Your task to perform on an android device: open a bookmark in the chrome app Image 0: 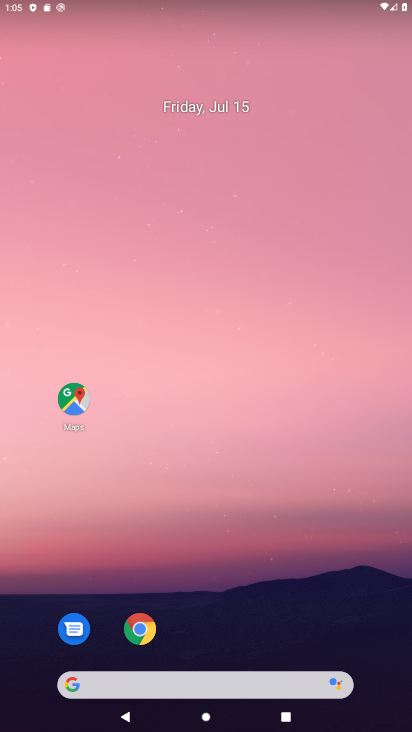
Step 0: click (250, 194)
Your task to perform on an android device: open a bookmark in the chrome app Image 1: 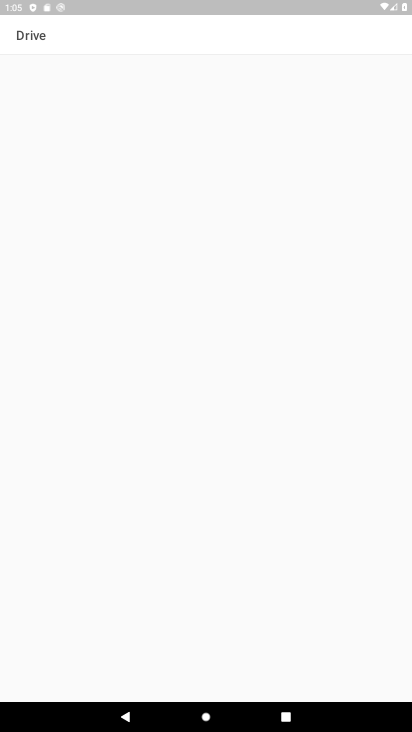
Step 1: press home button
Your task to perform on an android device: open a bookmark in the chrome app Image 2: 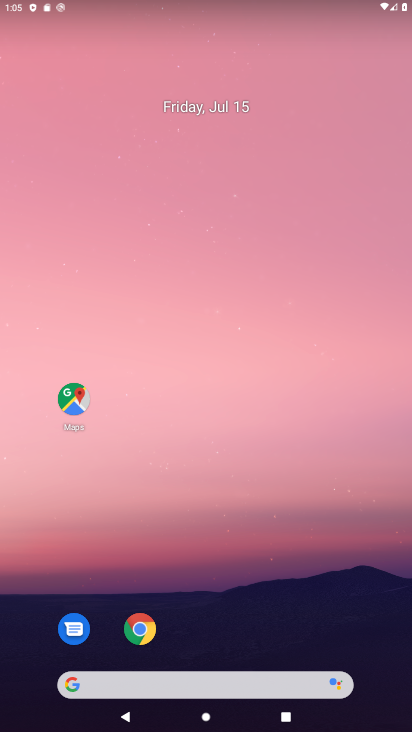
Step 2: drag from (240, 578) to (242, 171)
Your task to perform on an android device: open a bookmark in the chrome app Image 3: 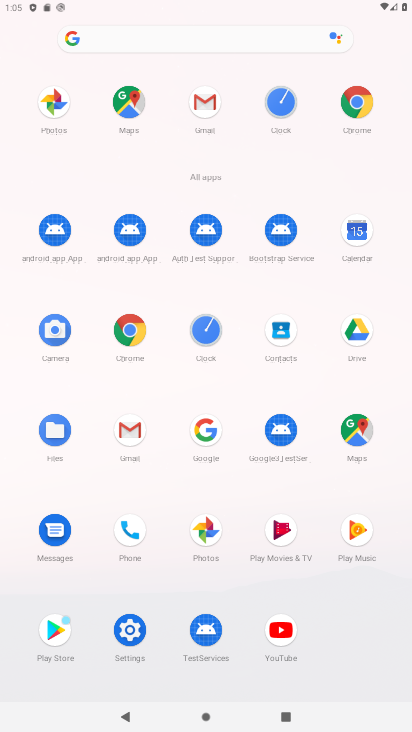
Step 3: click (130, 613)
Your task to perform on an android device: open a bookmark in the chrome app Image 4: 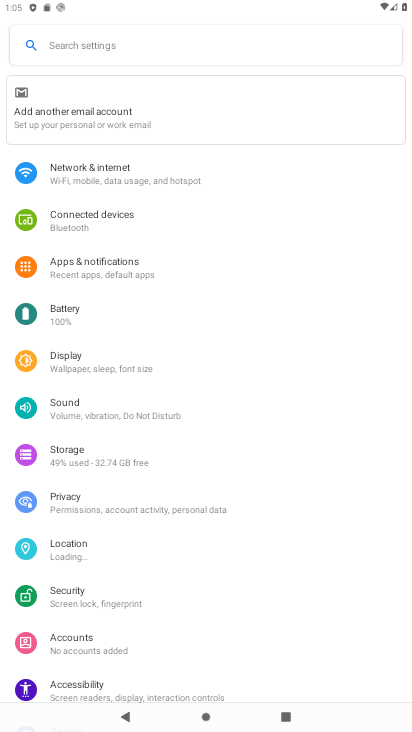
Step 4: press home button
Your task to perform on an android device: open a bookmark in the chrome app Image 5: 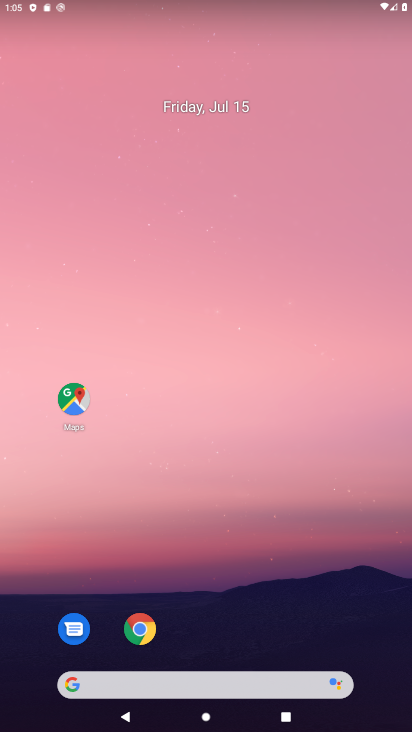
Step 5: drag from (294, 658) to (251, 240)
Your task to perform on an android device: open a bookmark in the chrome app Image 6: 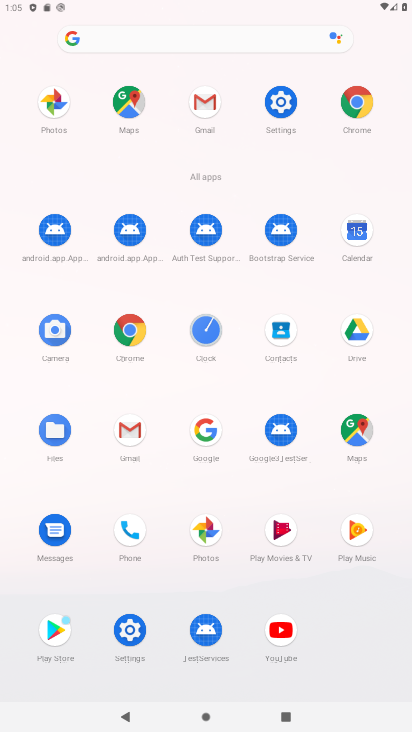
Step 6: click (365, 98)
Your task to perform on an android device: open a bookmark in the chrome app Image 7: 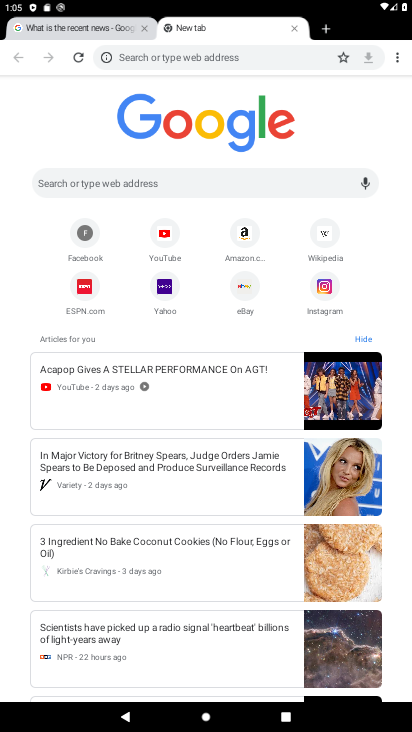
Step 7: click (397, 55)
Your task to perform on an android device: open a bookmark in the chrome app Image 8: 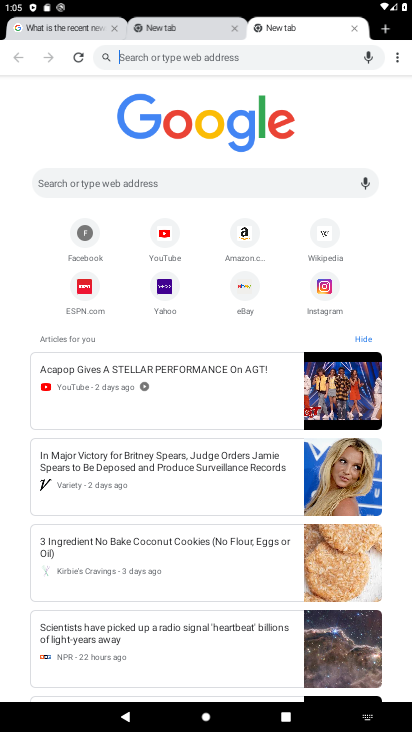
Step 8: click (396, 47)
Your task to perform on an android device: open a bookmark in the chrome app Image 9: 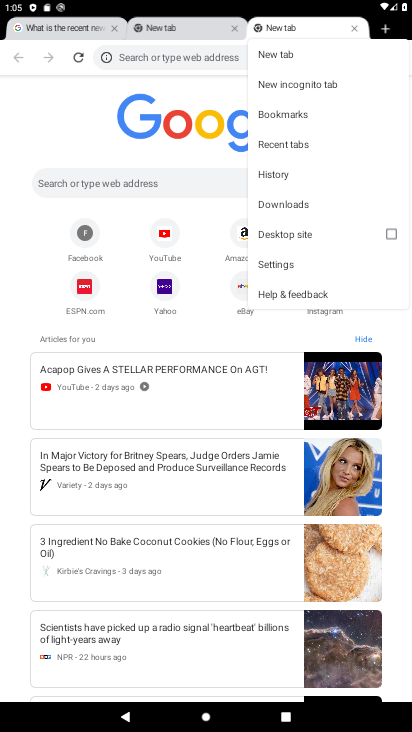
Step 9: click (293, 109)
Your task to perform on an android device: open a bookmark in the chrome app Image 10: 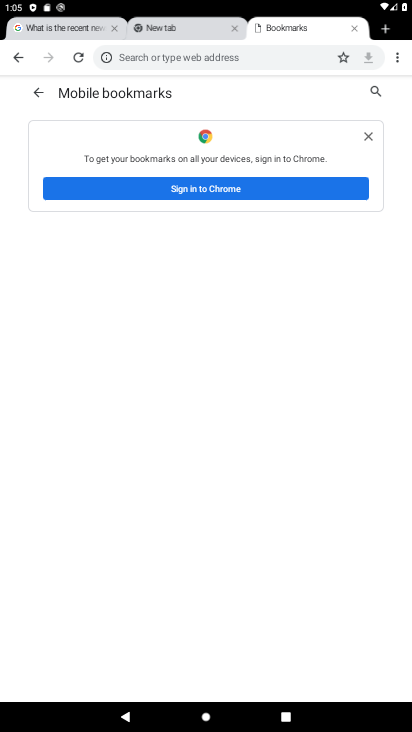
Step 10: task complete